Your task to perform on an android device: What's the weather today? Image 0: 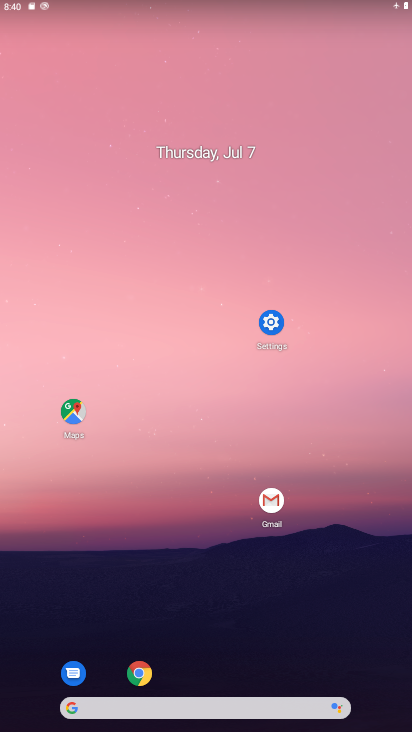
Step 0: click (264, 324)
Your task to perform on an android device: What's the weather today? Image 1: 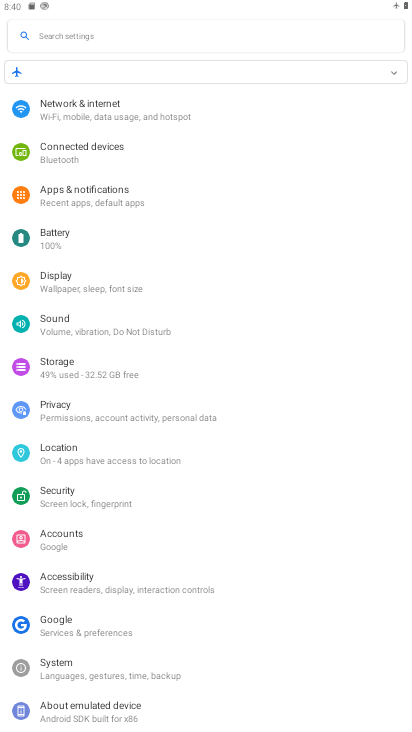
Step 1: drag from (179, 133) to (236, 532)
Your task to perform on an android device: What's the weather today? Image 2: 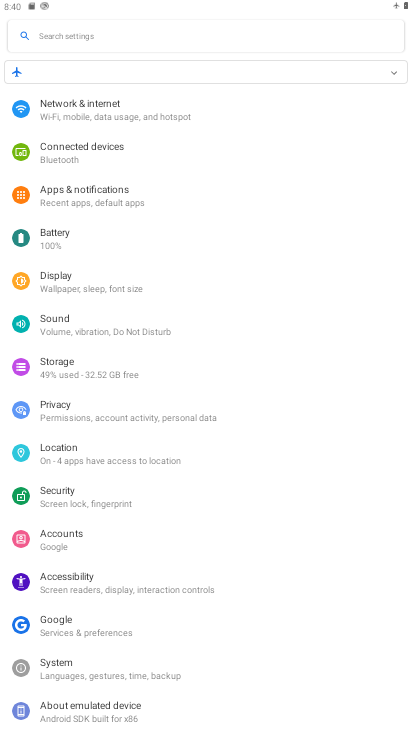
Step 2: click (157, 102)
Your task to perform on an android device: What's the weather today? Image 3: 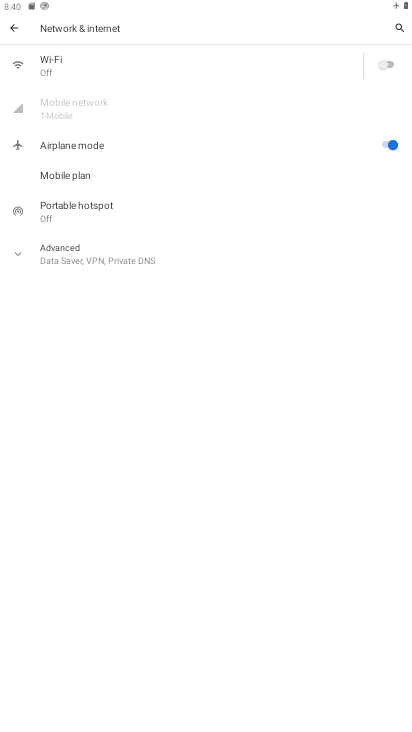
Step 3: click (384, 146)
Your task to perform on an android device: What's the weather today? Image 4: 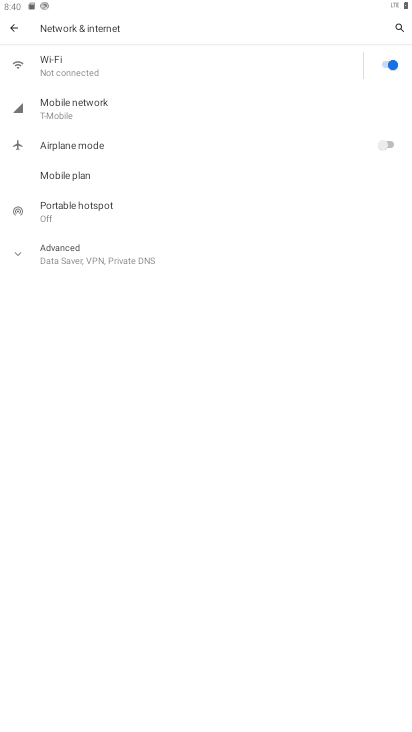
Step 4: click (392, 59)
Your task to perform on an android device: What's the weather today? Image 5: 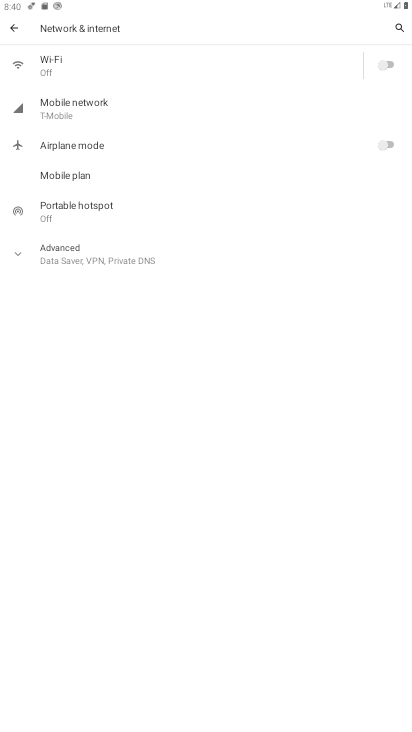
Step 5: click (391, 65)
Your task to perform on an android device: What's the weather today? Image 6: 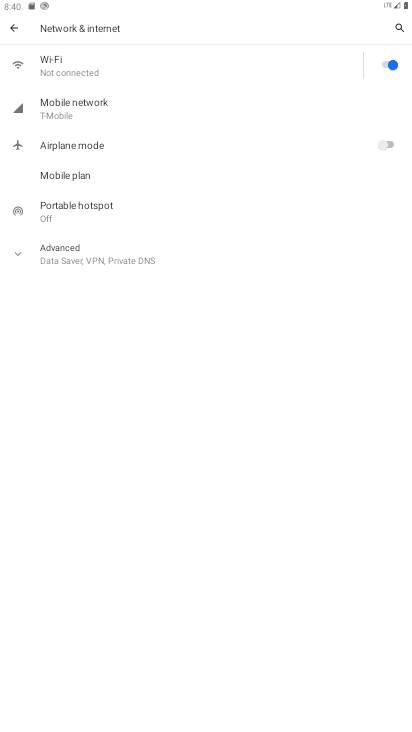
Step 6: task complete